Your task to perform on an android device: delete a single message in the gmail app Image 0: 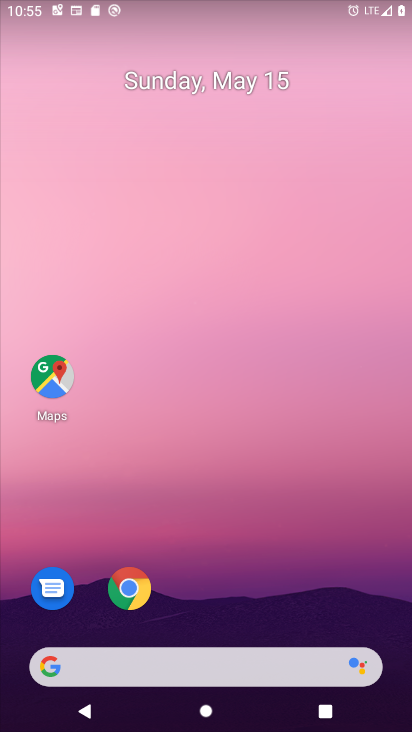
Step 0: drag from (263, 594) to (304, 163)
Your task to perform on an android device: delete a single message in the gmail app Image 1: 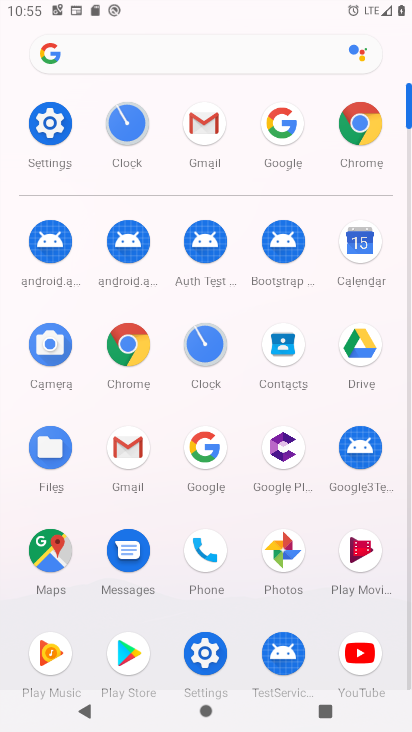
Step 1: click (192, 137)
Your task to perform on an android device: delete a single message in the gmail app Image 2: 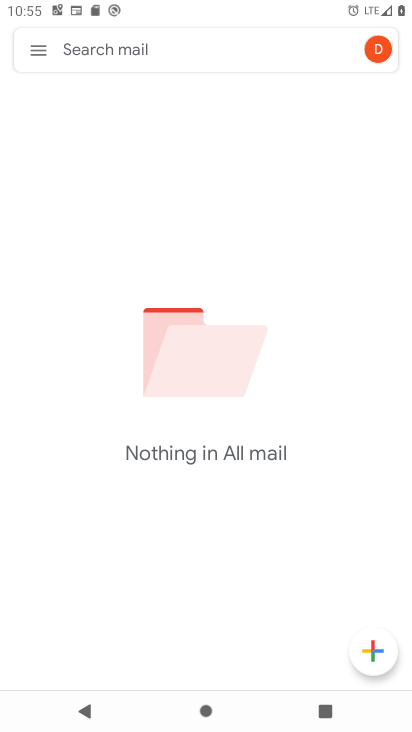
Step 2: task complete